Your task to perform on an android device: delete a single message in the gmail app Image 0: 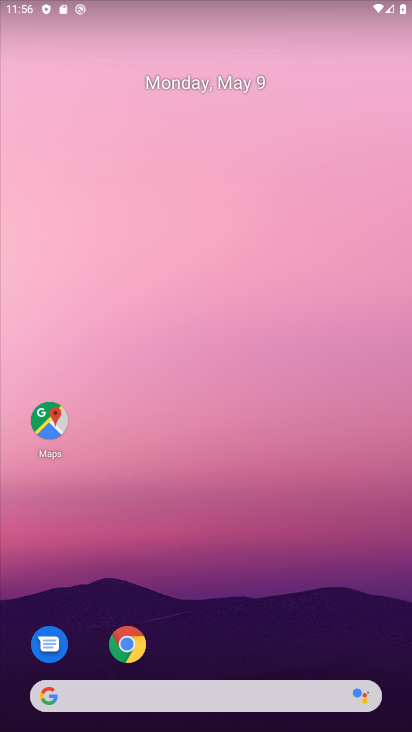
Step 0: drag from (213, 601) to (243, 6)
Your task to perform on an android device: delete a single message in the gmail app Image 1: 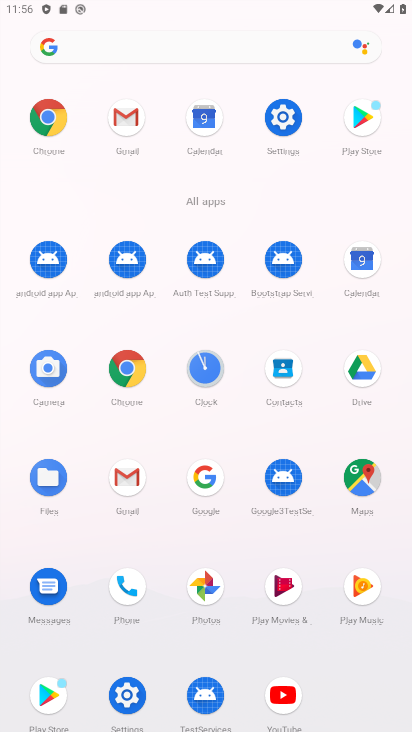
Step 1: click (136, 476)
Your task to perform on an android device: delete a single message in the gmail app Image 2: 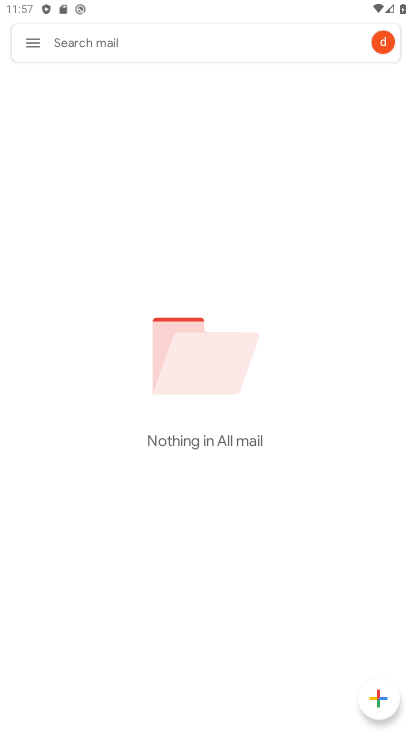
Step 2: click (33, 44)
Your task to perform on an android device: delete a single message in the gmail app Image 3: 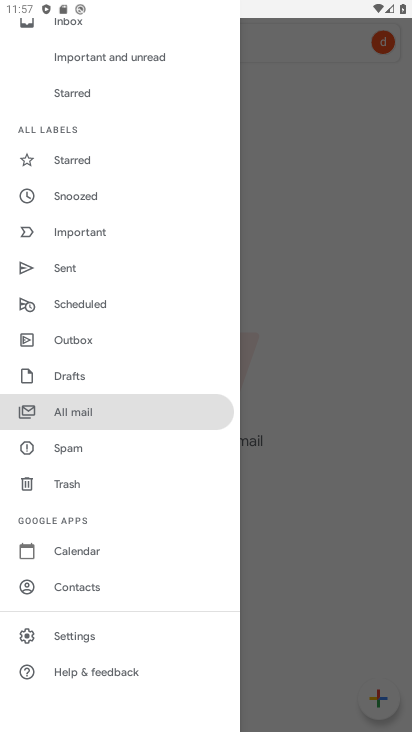
Step 3: click (62, 419)
Your task to perform on an android device: delete a single message in the gmail app Image 4: 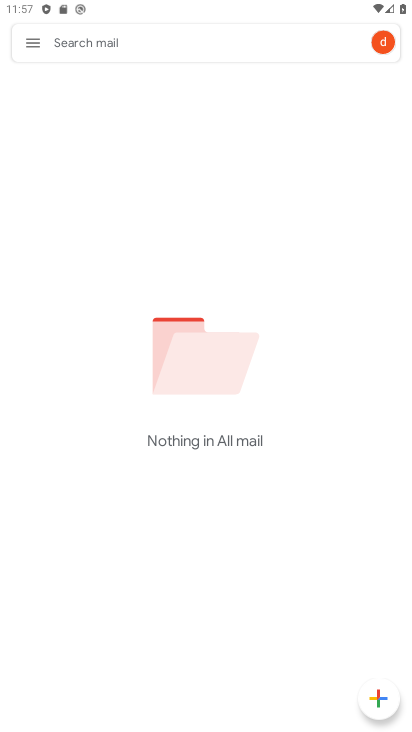
Step 4: task complete